Your task to perform on an android device: install app "Facebook Messenger" Image 0: 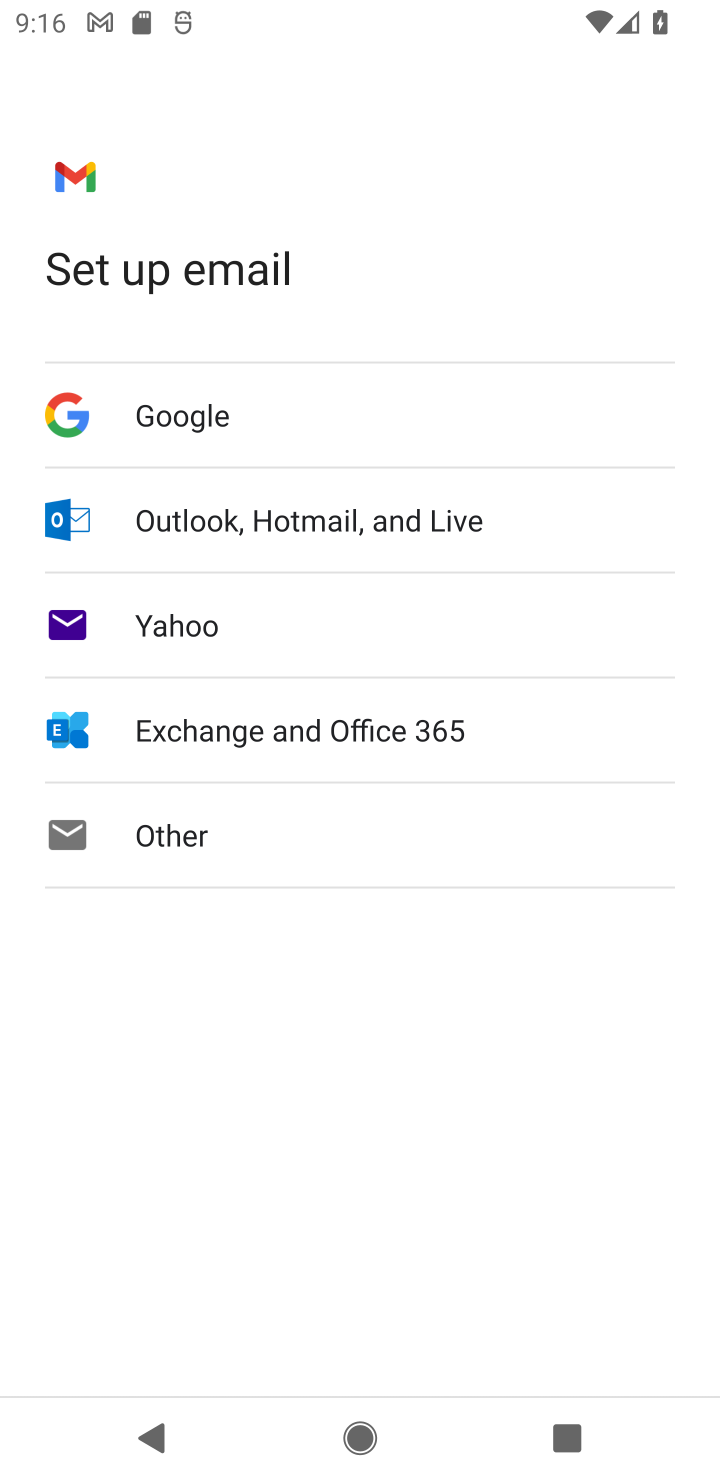
Step 0: press home button
Your task to perform on an android device: install app "Facebook Messenger" Image 1: 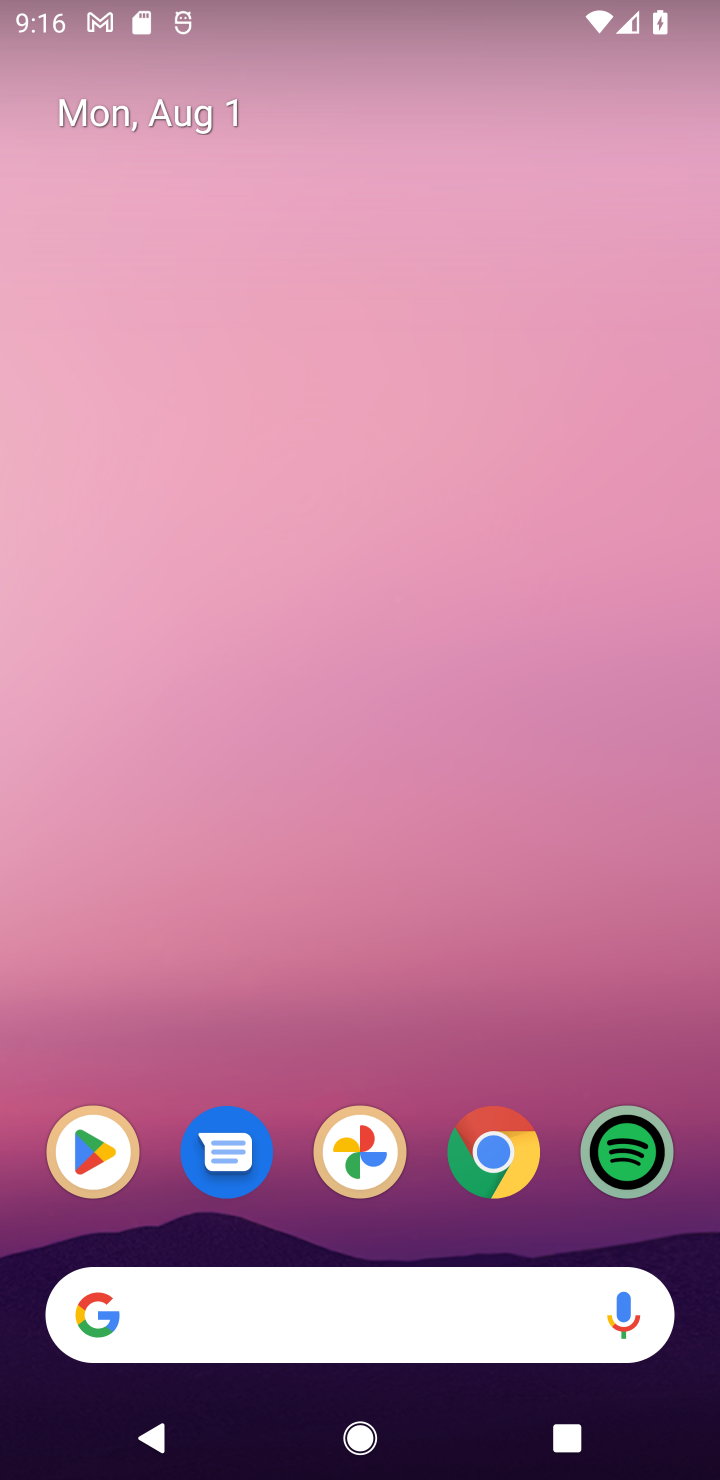
Step 1: drag from (449, 1226) to (416, 42)
Your task to perform on an android device: install app "Facebook Messenger" Image 2: 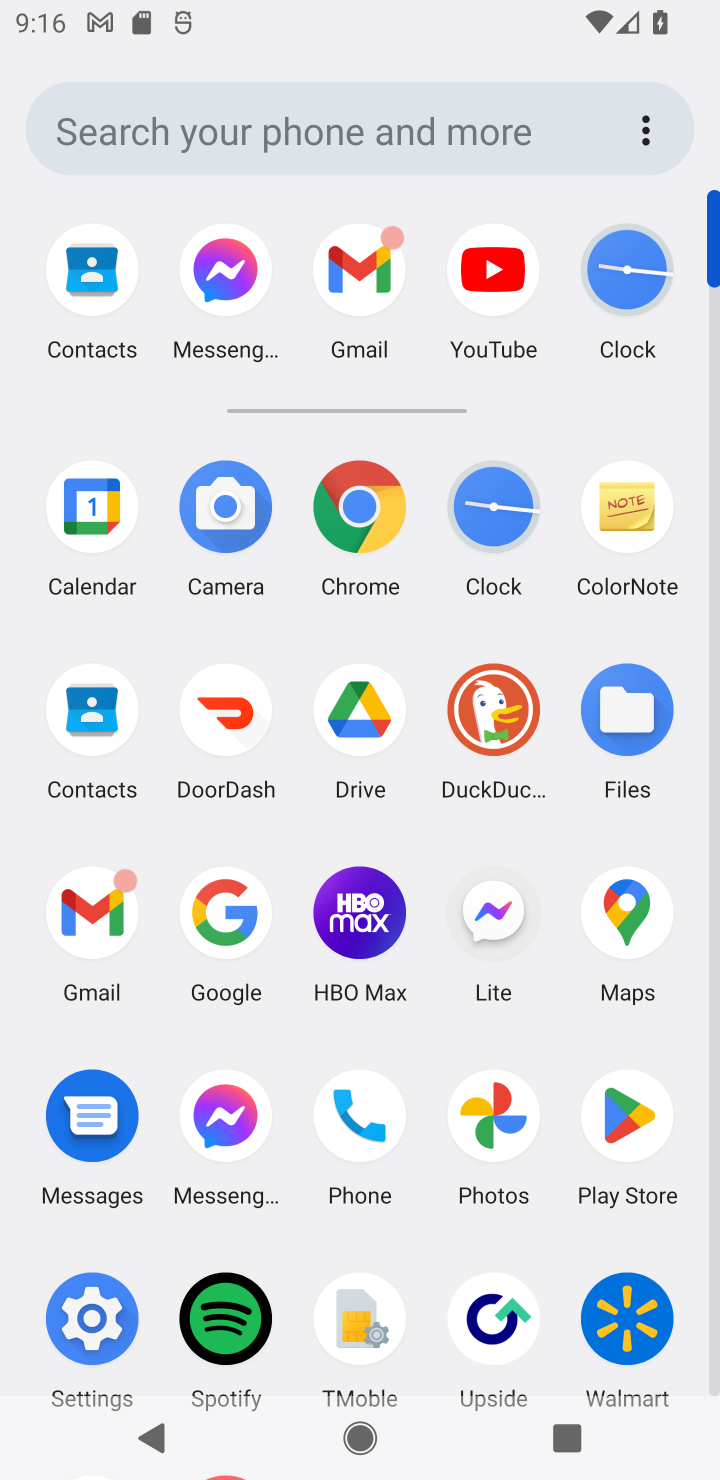
Step 2: click (622, 1121)
Your task to perform on an android device: install app "Facebook Messenger" Image 3: 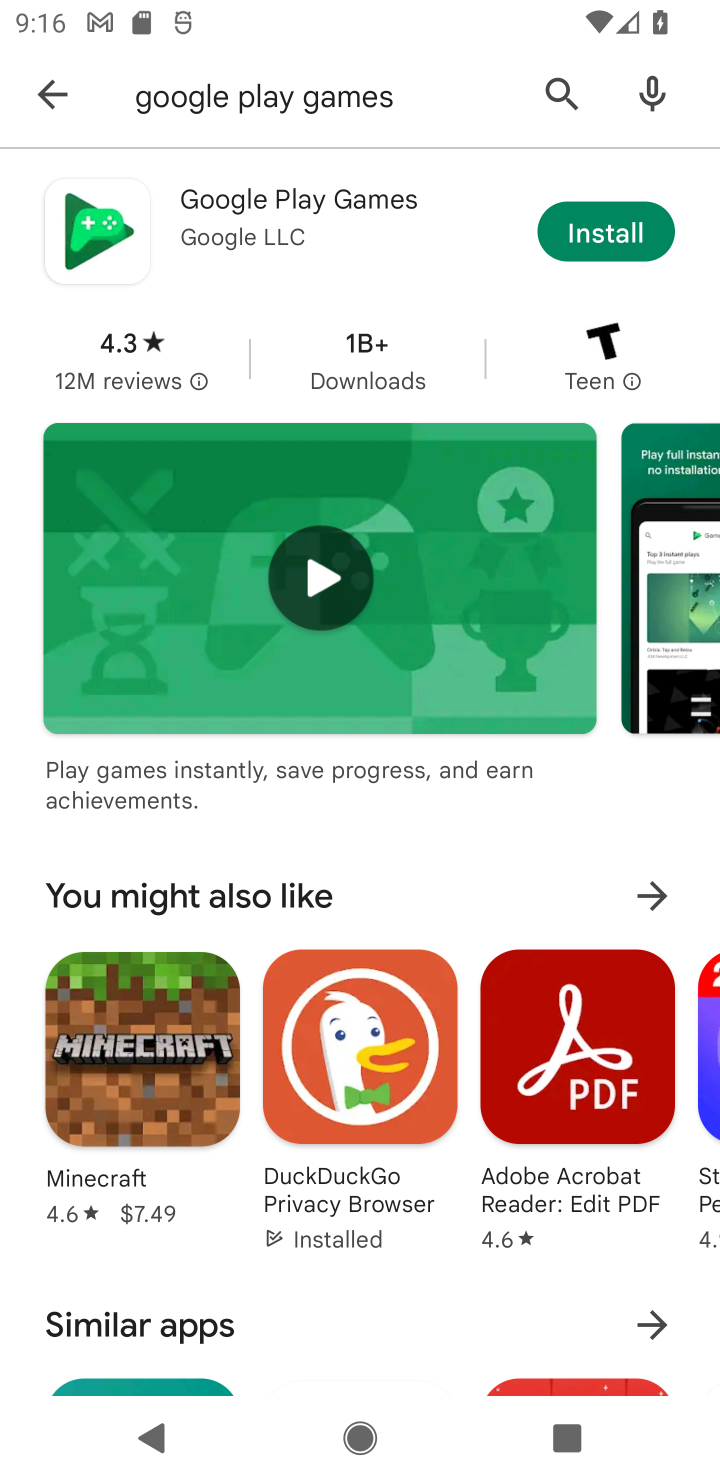
Step 3: click (36, 102)
Your task to perform on an android device: install app "Facebook Messenger" Image 4: 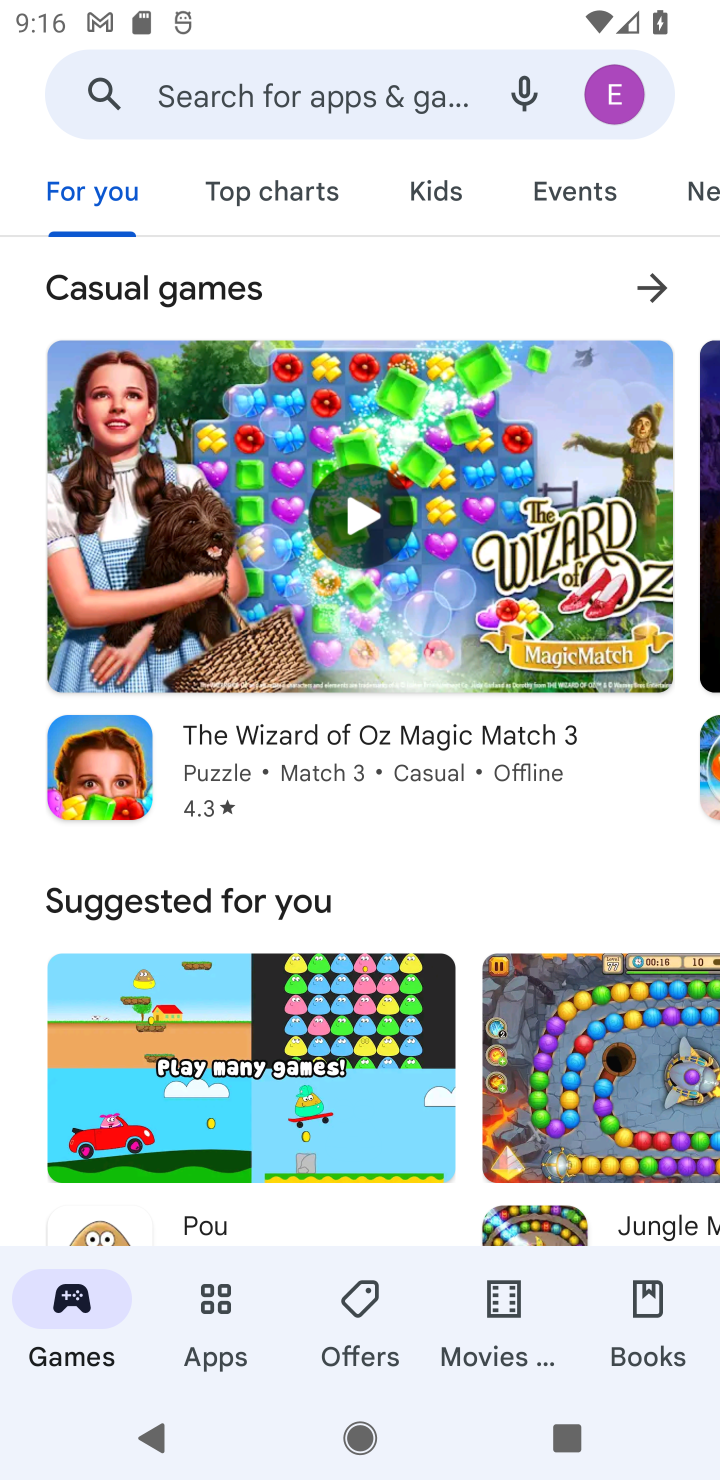
Step 4: click (206, 113)
Your task to perform on an android device: install app "Facebook Messenger" Image 5: 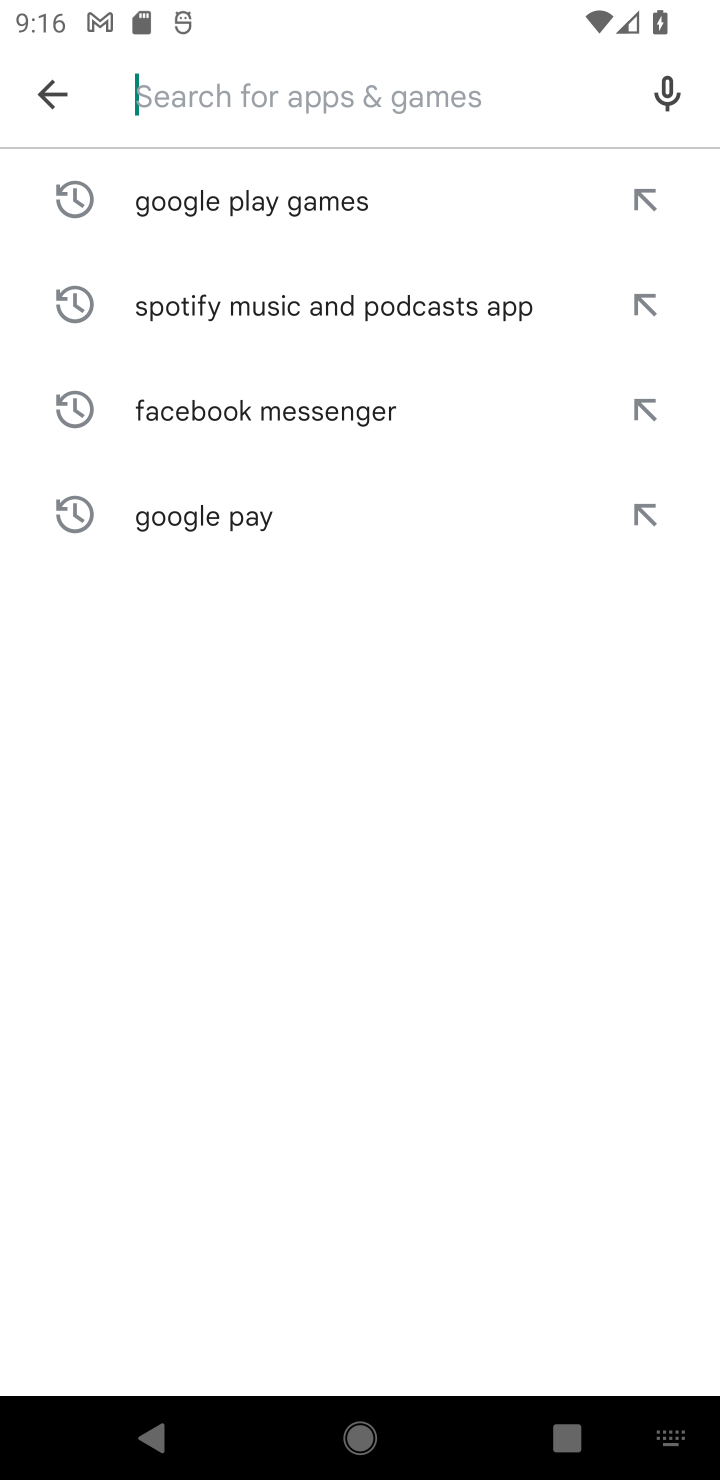
Step 5: type "Facebook Messenger"
Your task to perform on an android device: install app "Facebook Messenger" Image 6: 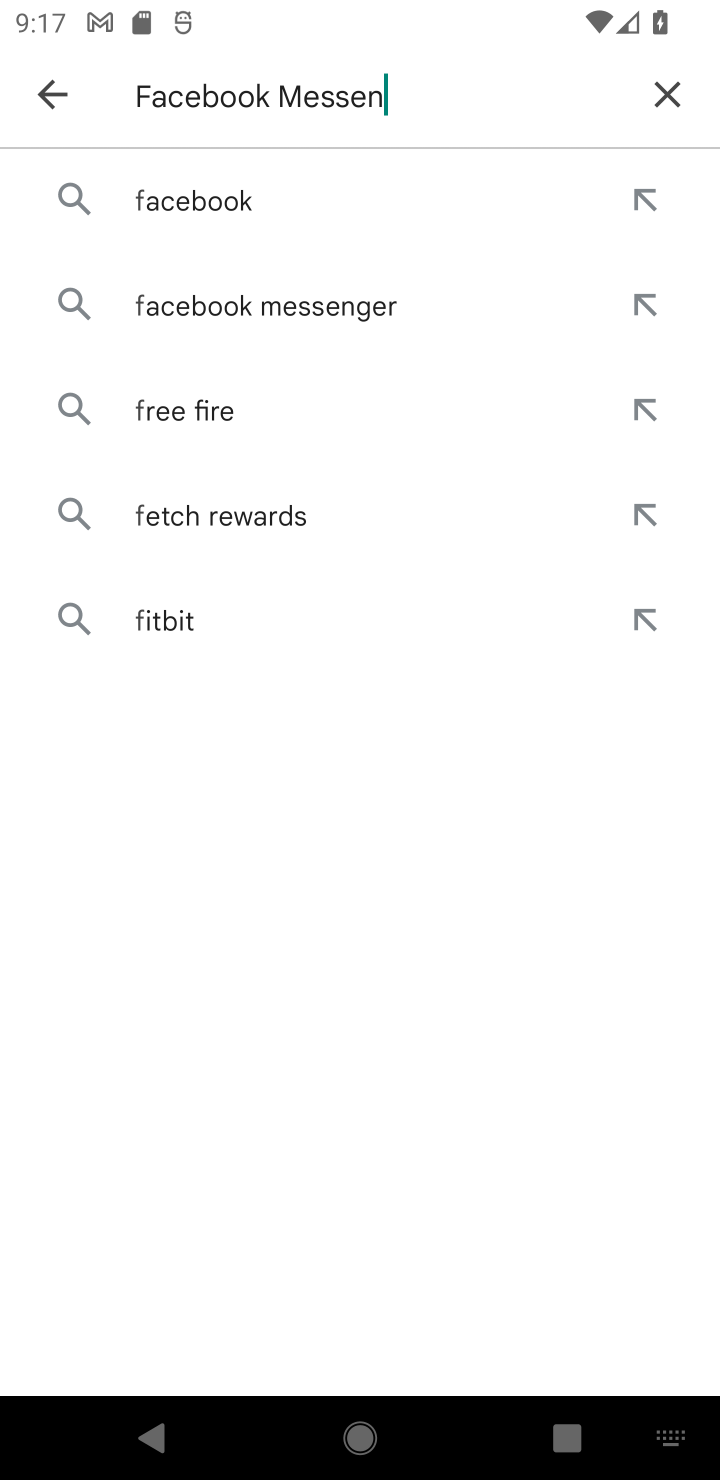
Step 6: type ""
Your task to perform on an android device: install app "Facebook Messenger" Image 7: 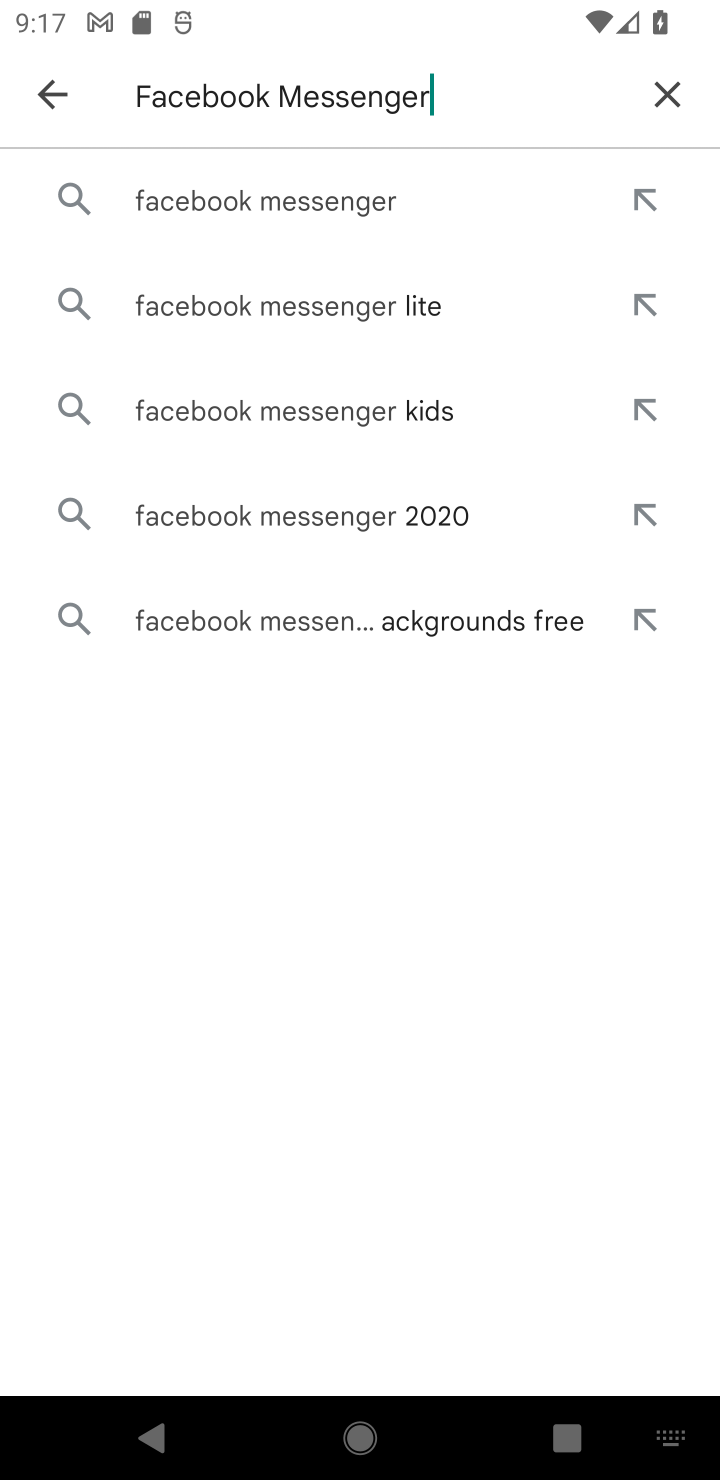
Step 7: click (239, 239)
Your task to perform on an android device: install app "Facebook Messenger" Image 8: 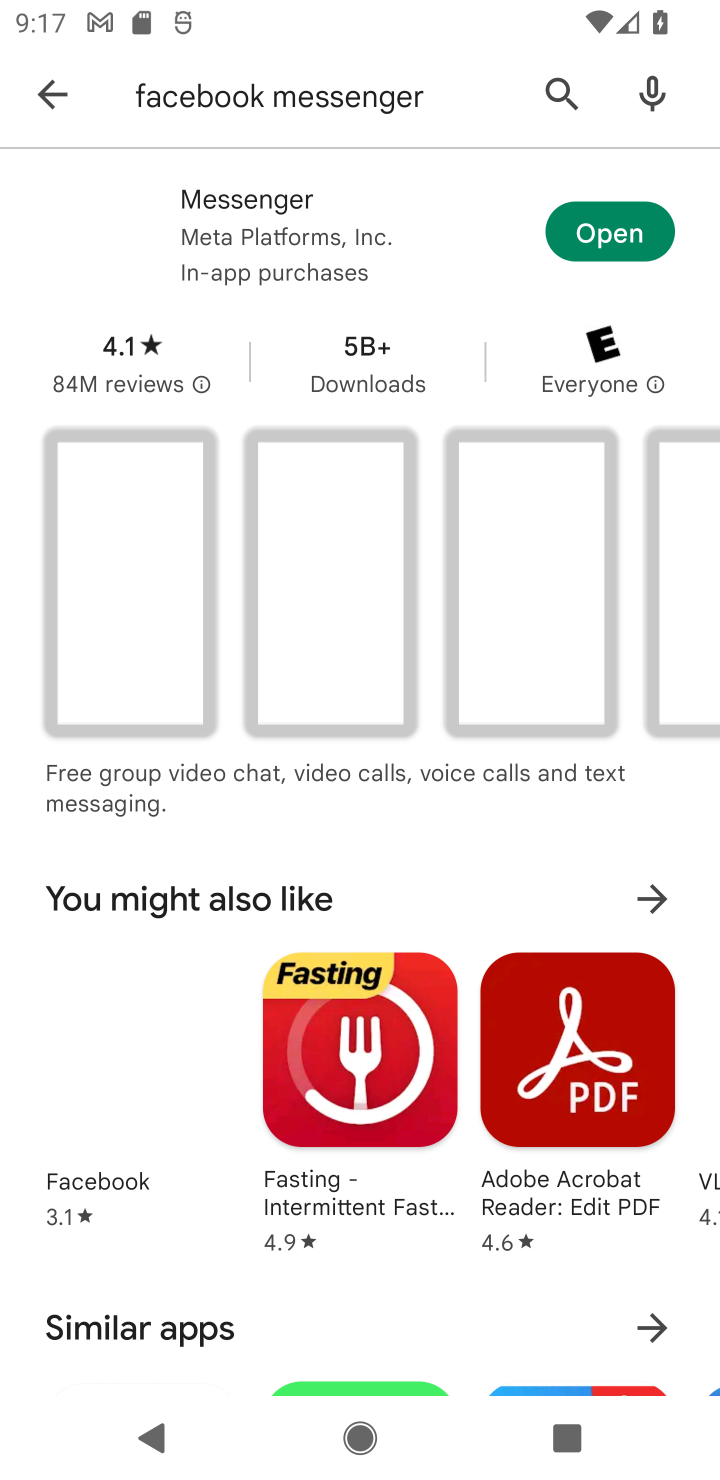
Step 8: click (530, 250)
Your task to perform on an android device: install app "Facebook Messenger" Image 9: 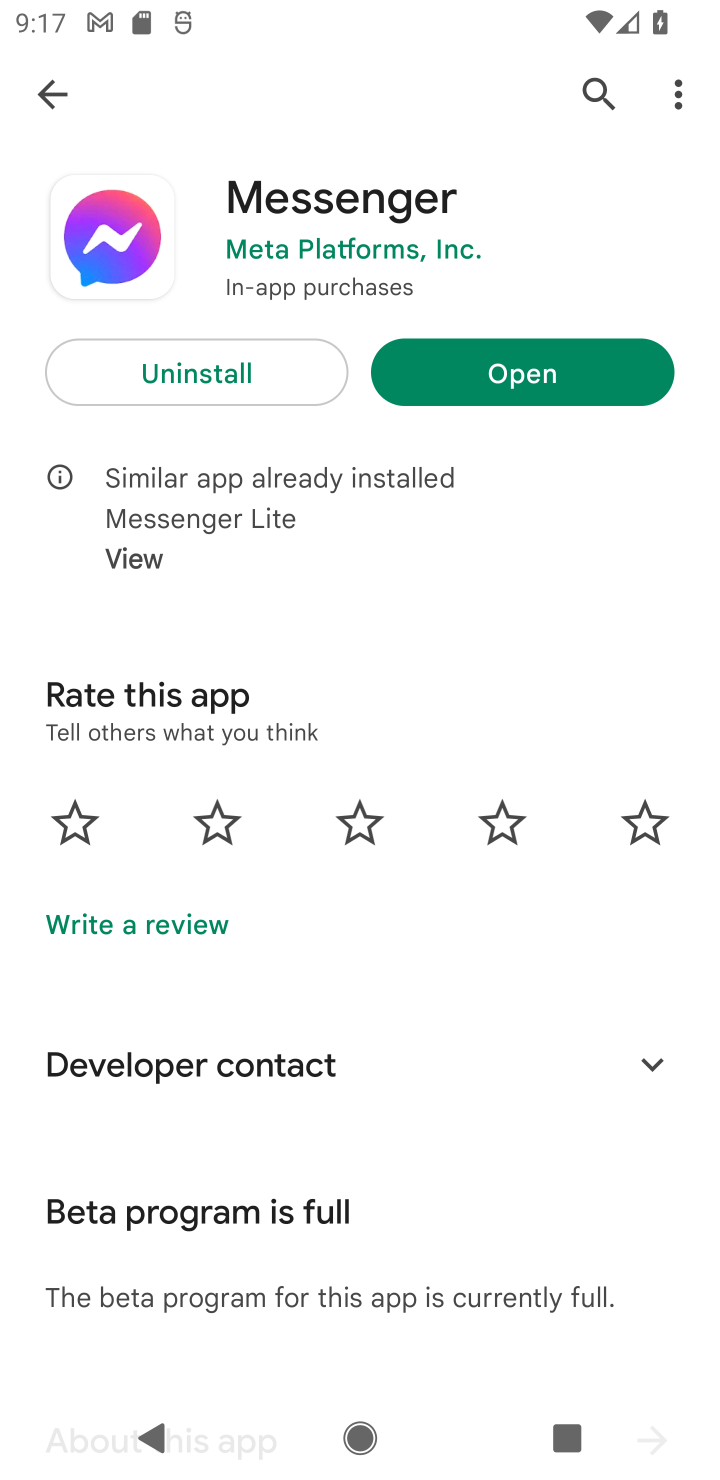
Step 9: task complete